Your task to perform on an android device: Open settings on Google Maps Image 0: 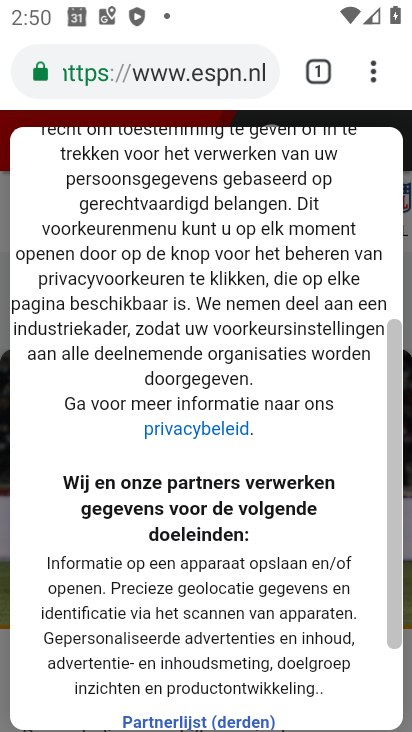
Step 0: press home button
Your task to perform on an android device: Open settings on Google Maps Image 1: 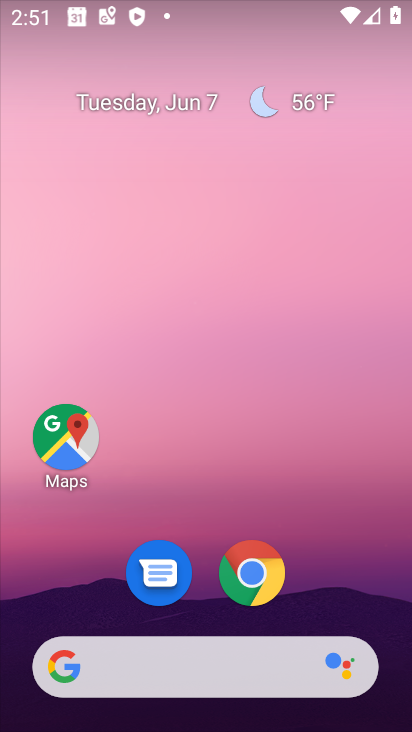
Step 1: click (50, 424)
Your task to perform on an android device: Open settings on Google Maps Image 2: 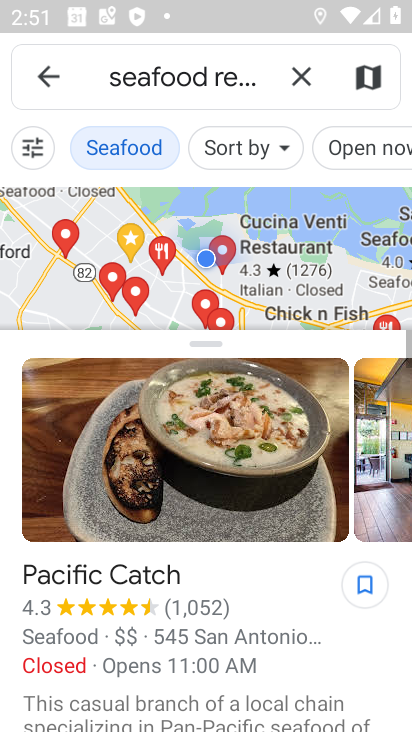
Step 2: click (50, 69)
Your task to perform on an android device: Open settings on Google Maps Image 3: 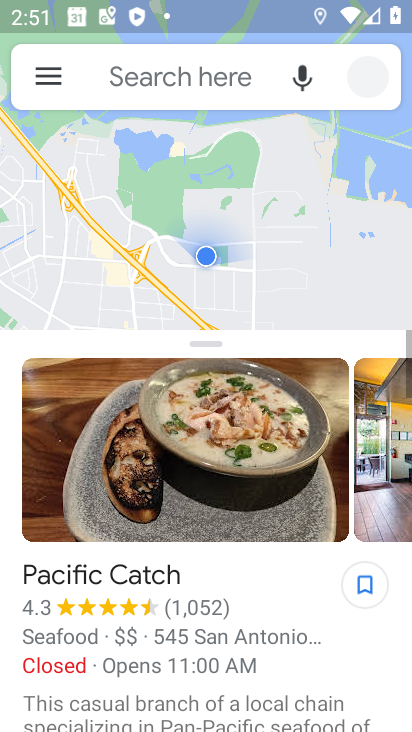
Step 3: click (46, 72)
Your task to perform on an android device: Open settings on Google Maps Image 4: 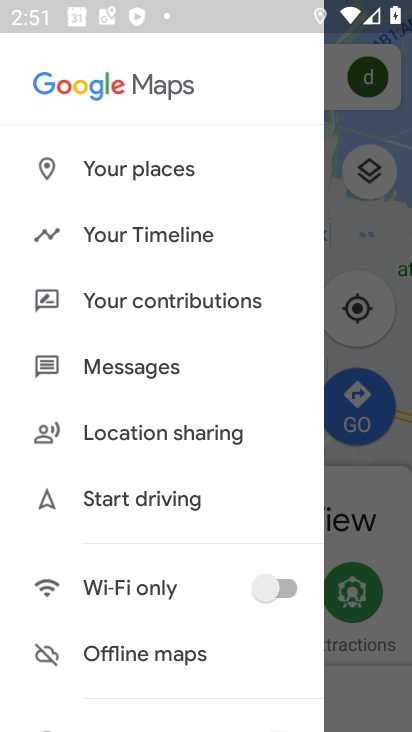
Step 4: drag from (134, 595) to (199, 119)
Your task to perform on an android device: Open settings on Google Maps Image 5: 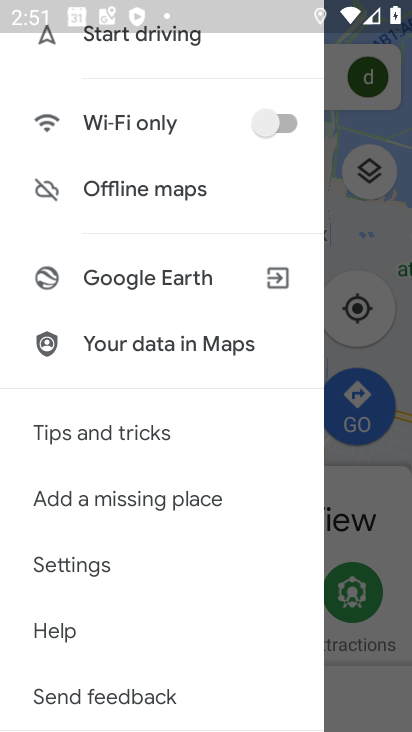
Step 5: click (96, 568)
Your task to perform on an android device: Open settings on Google Maps Image 6: 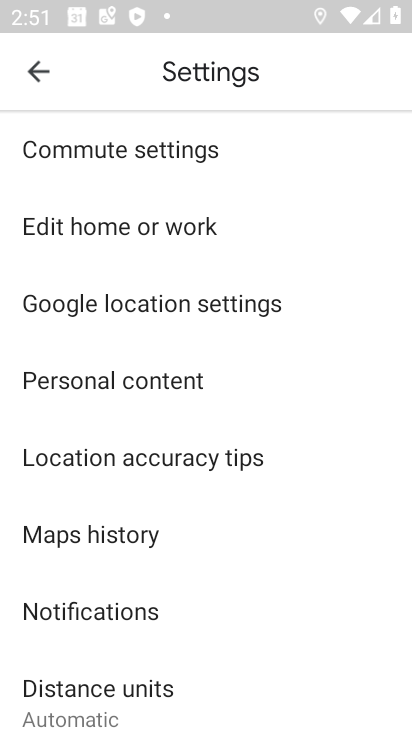
Step 6: task complete